Your task to perform on an android device: make emails show in primary in the gmail app Image 0: 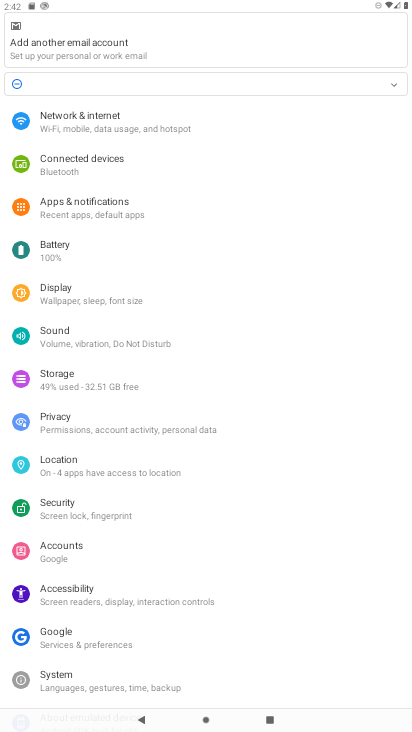
Step 0: press home button
Your task to perform on an android device: make emails show in primary in the gmail app Image 1: 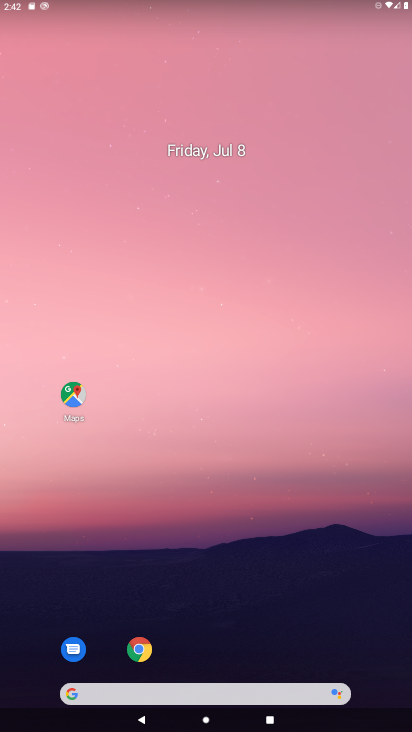
Step 1: drag from (395, 657) to (336, 26)
Your task to perform on an android device: make emails show in primary in the gmail app Image 2: 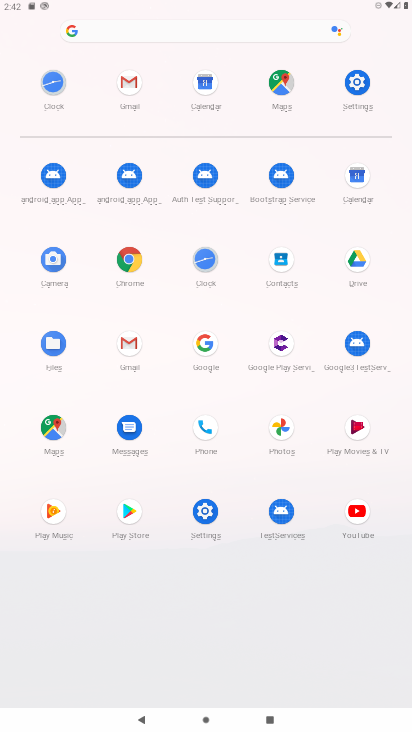
Step 2: click (129, 341)
Your task to perform on an android device: make emails show in primary in the gmail app Image 3: 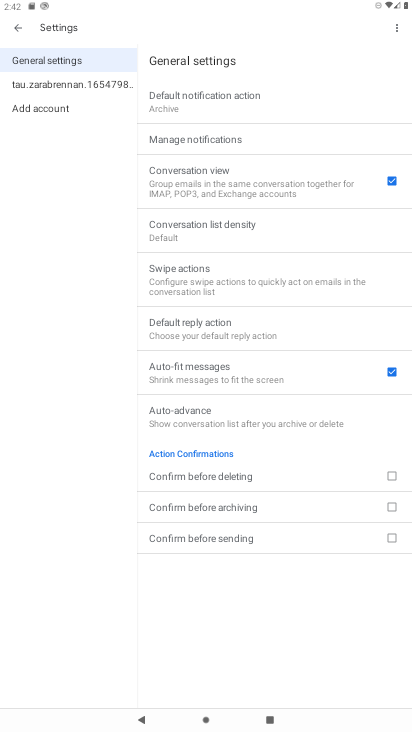
Step 3: click (62, 82)
Your task to perform on an android device: make emails show in primary in the gmail app Image 4: 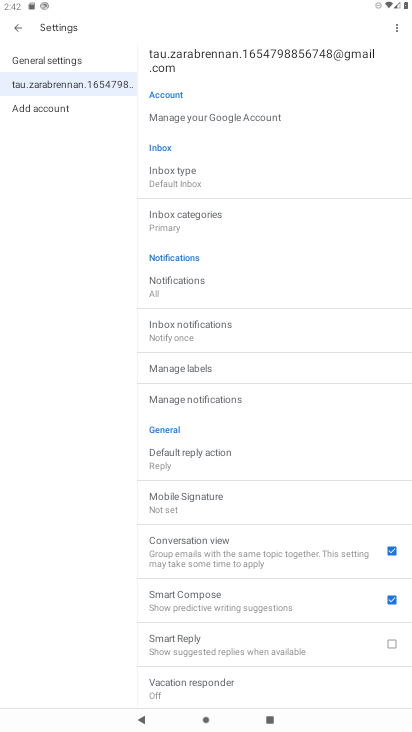
Step 4: click (175, 214)
Your task to perform on an android device: make emails show in primary in the gmail app Image 5: 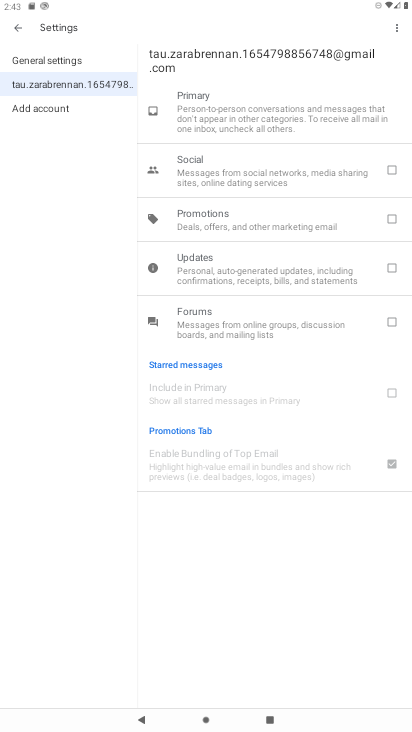
Step 5: task complete